Your task to perform on an android device: Toggle the flashlight Image 0: 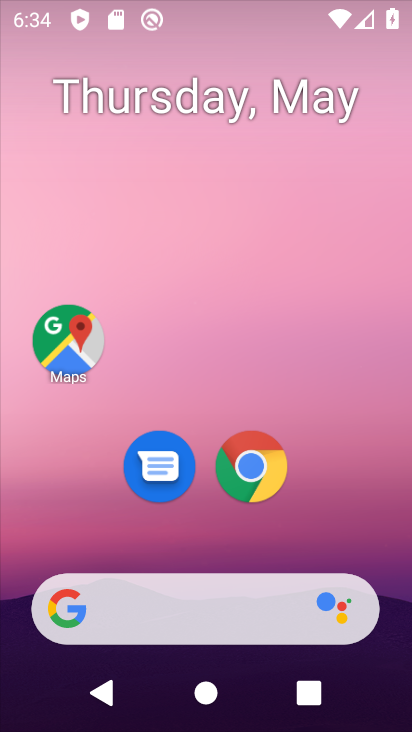
Step 0: drag from (360, 478) to (318, 104)
Your task to perform on an android device: Toggle the flashlight Image 1: 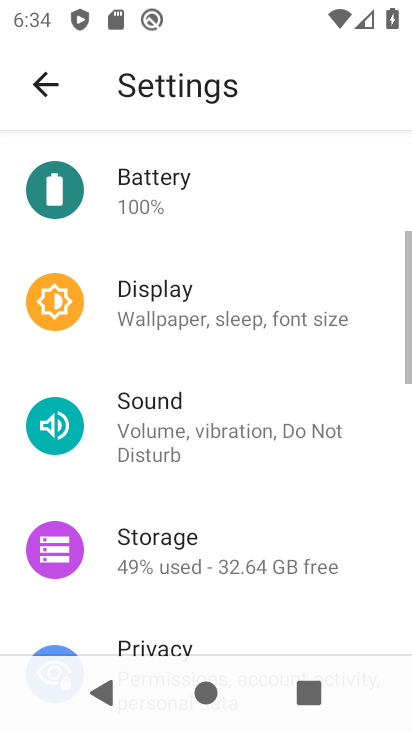
Step 1: click (168, 307)
Your task to perform on an android device: Toggle the flashlight Image 2: 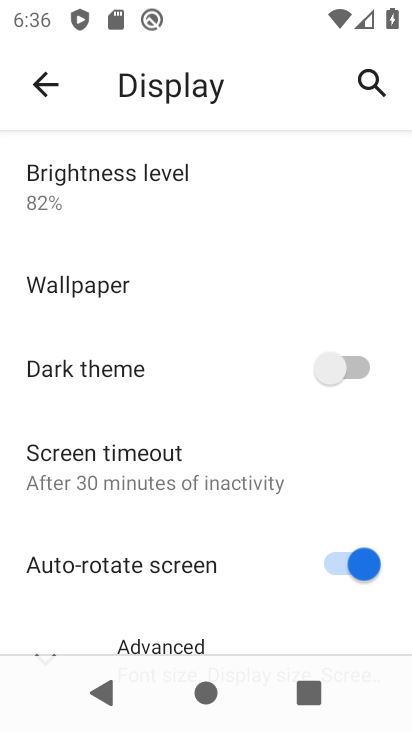
Step 2: task complete